Your task to perform on an android device: Go to Yahoo.com Image 0: 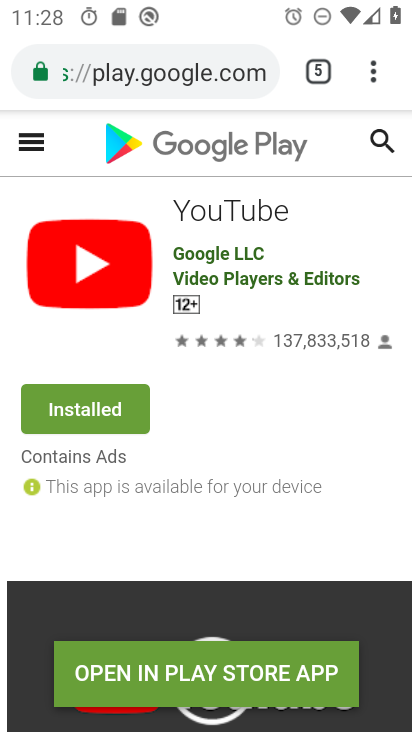
Step 0: drag from (275, 649) to (294, 445)
Your task to perform on an android device: Go to Yahoo.com Image 1: 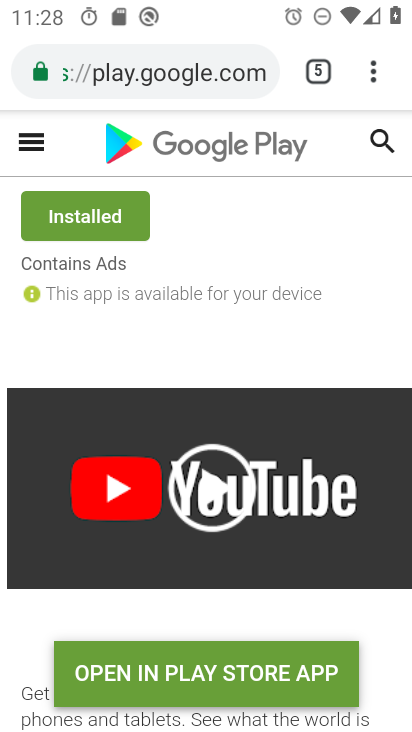
Step 1: press home button
Your task to perform on an android device: Go to Yahoo.com Image 2: 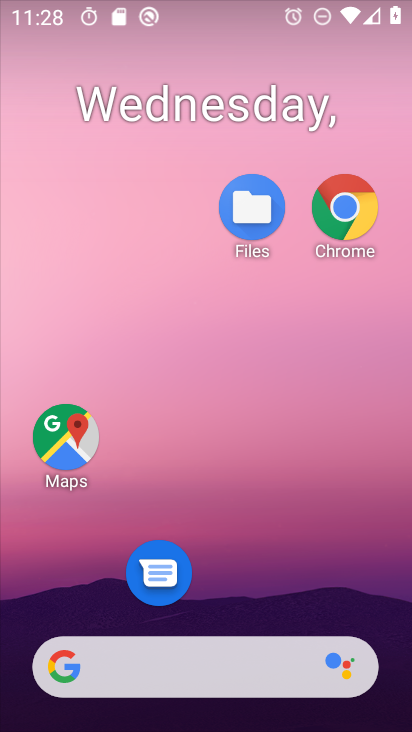
Step 2: drag from (215, 615) to (307, 74)
Your task to perform on an android device: Go to Yahoo.com Image 3: 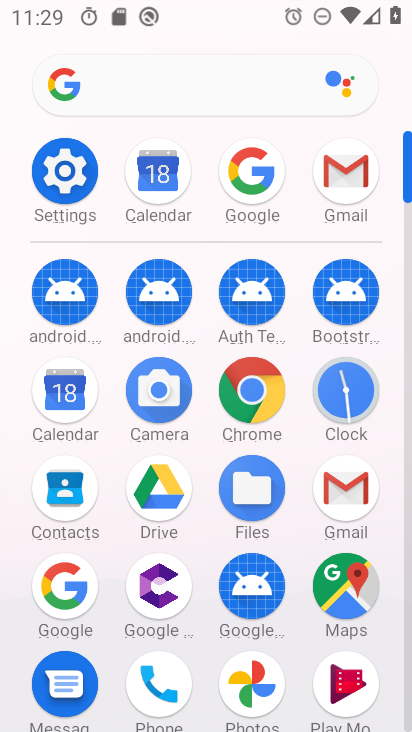
Step 3: click (257, 395)
Your task to perform on an android device: Go to Yahoo.com Image 4: 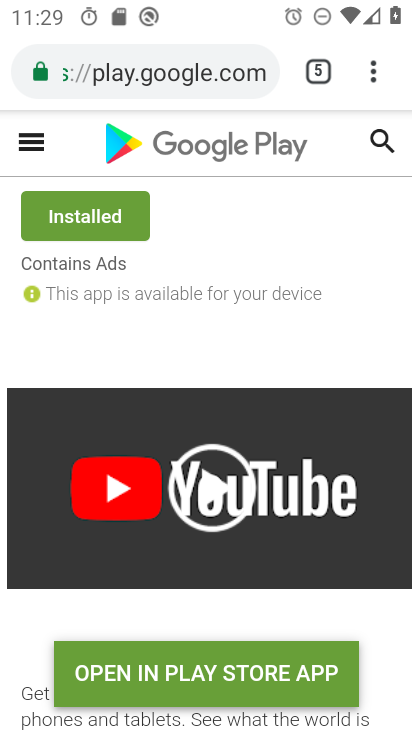
Step 4: click (239, 81)
Your task to perform on an android device: Go to Yahoo.com Image 5: 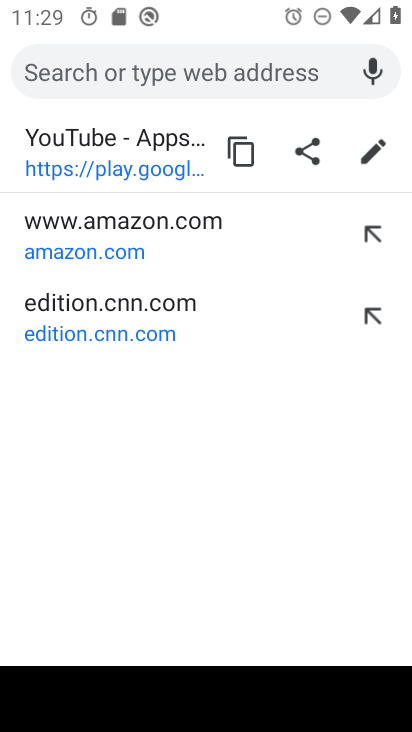
Step 5: type "yahoo"
Your task to perform on an android device: Go to Yahoo.com Image 6: 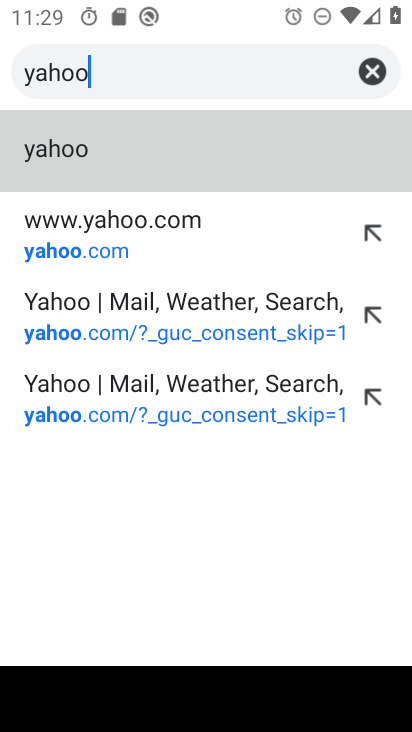
Step 6: click (167, 248)
Your task to perform on an android device: Go to Yahoo.com Image 7: 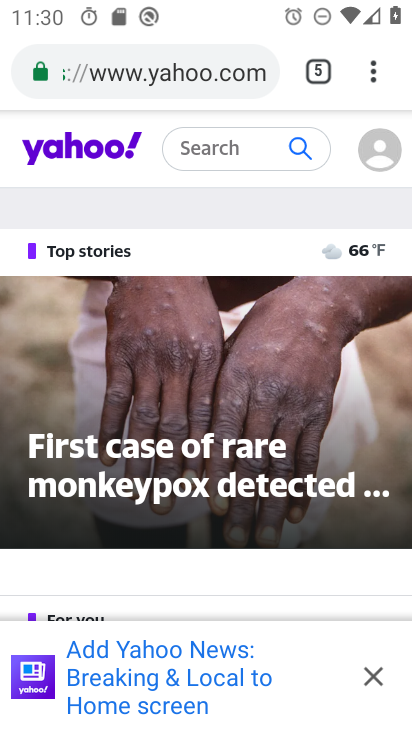
Step 7: task complete